Your task to perform on an android device: Play the last video I watched on Youtube Image 0: 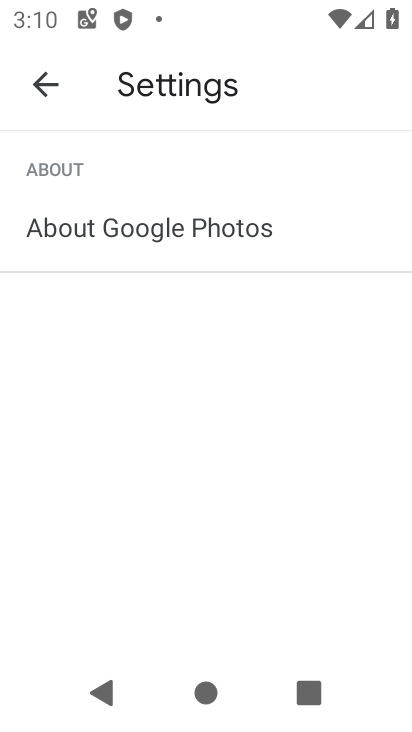
Step 0: press back button
Your task to perform on an android device: Play the last video I watched on Youtube Image 1: 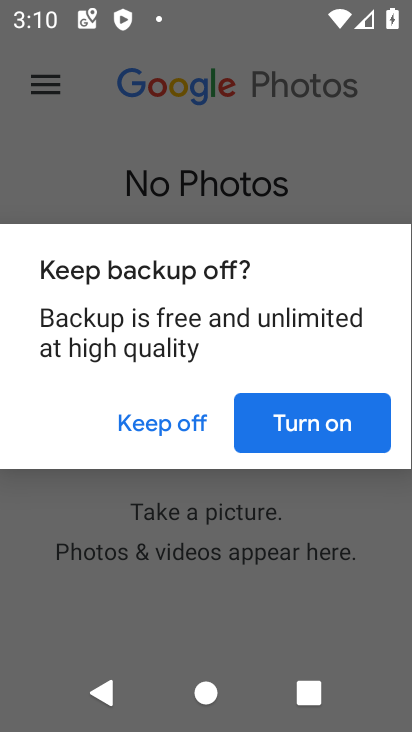
Step 1: press back button
Your task to perform on an android device: Play the last video I watched on Youtube Image 2: 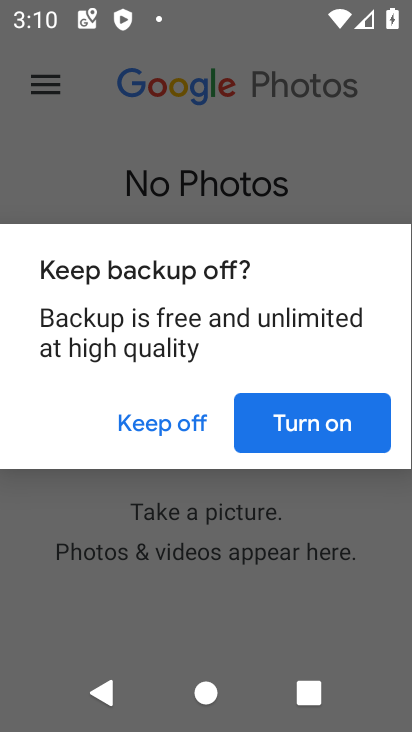
Step 2: press home button
Your task to perform on an android device: Play the last video I watched on Youtube Image 3: 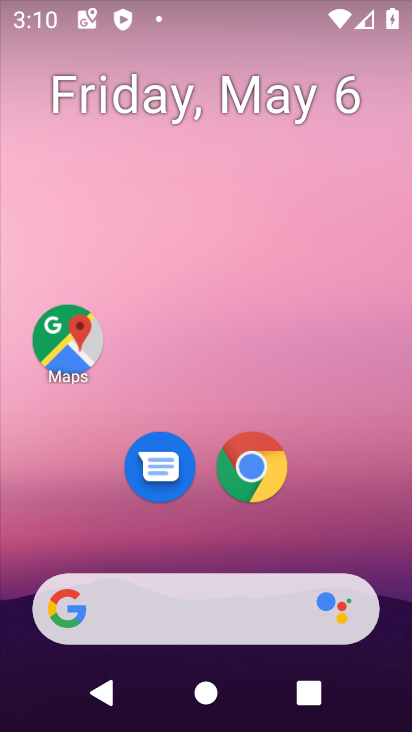
Step 3: drag from (222, 521) to (328, 28)
Your task to perform on an android device: Play the last video I watched on Youtube Image 4: 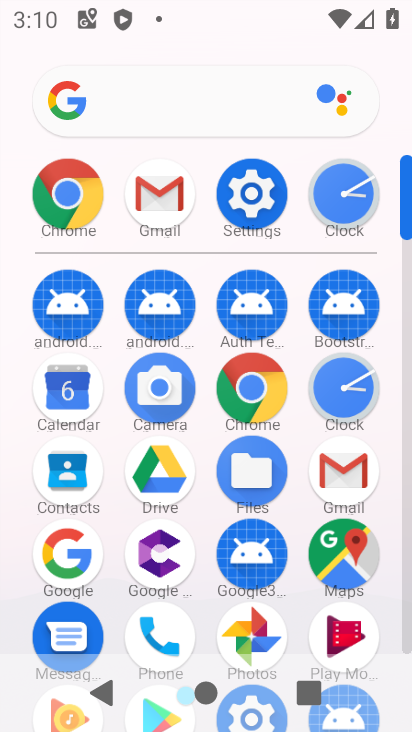
Step 4: drag from (227, 639) to (306, 90)
Your task to perform on an android device: Play the last video I watched on Youtube Image 5: 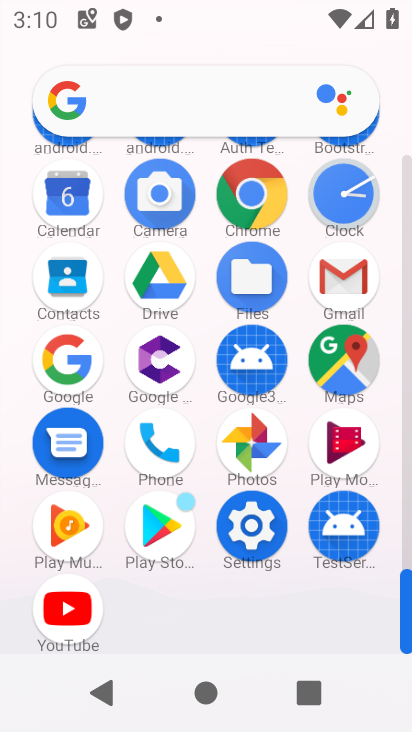
Step 5: click (81, 624)
Your task to perform on an android device: Play the last video I watched on Youtube Image 6: 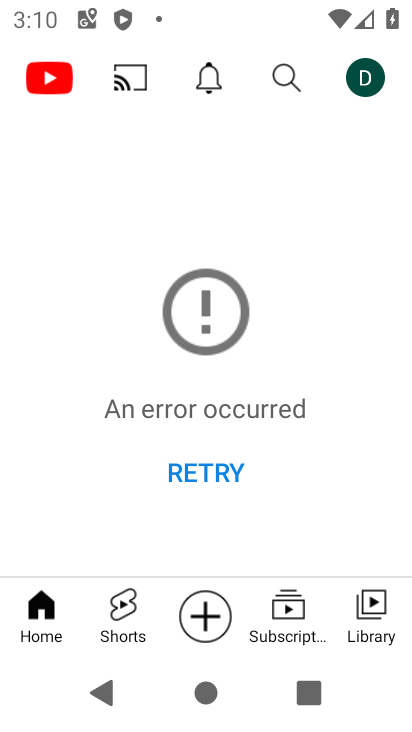
Step 6: click (373, 624)
Your task to perform on an android device: Play the last video I watched on Youtube Image 7: 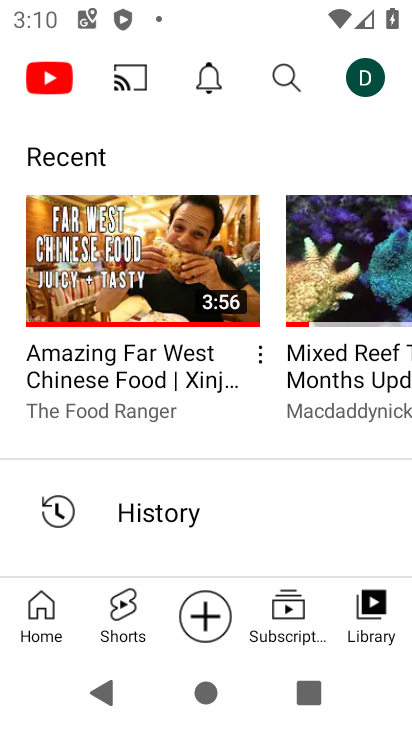
Step 7: click (161, 529)
Your task to perform on an android device: Play the last video I watched on Youtube Image 8: 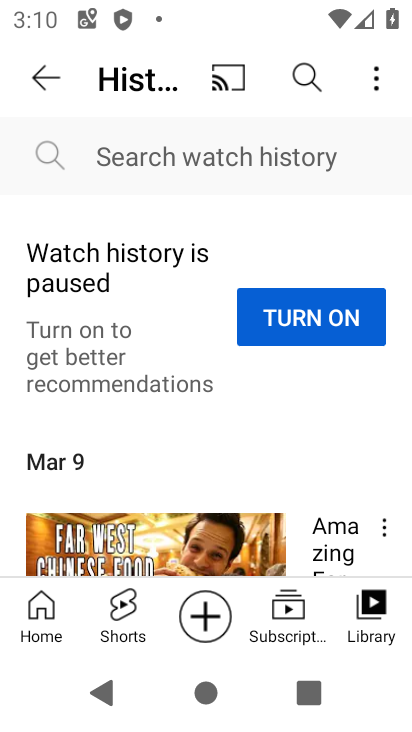
Step 8: task complete